Your task to perform on an android device: turn on sleep mode Image 0: 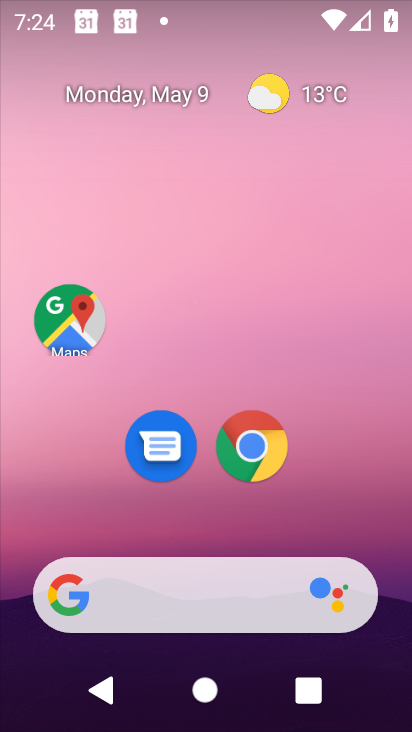
Step 0: drag from (301, 480) to (322, 82)
Your task to perform on an android device: turn on sleep mode Image 1: 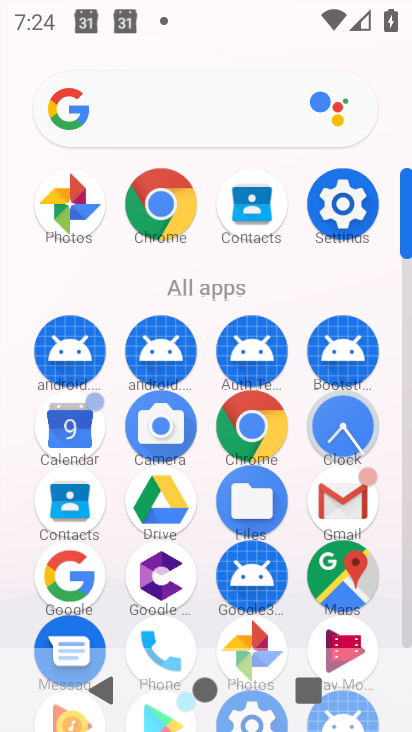
Step 1: click (341, 199)
Your task to perform on an android device: turn on sleep mode Image 2: 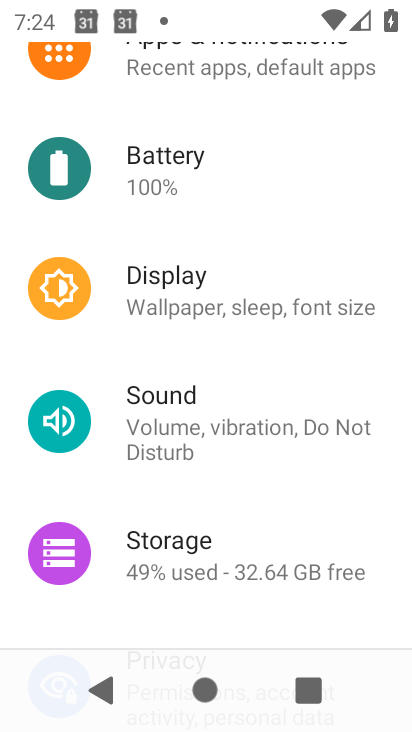
Step 2: click (271, 318)
Your task to perform on an android device: turn on sleep mode Image 3: 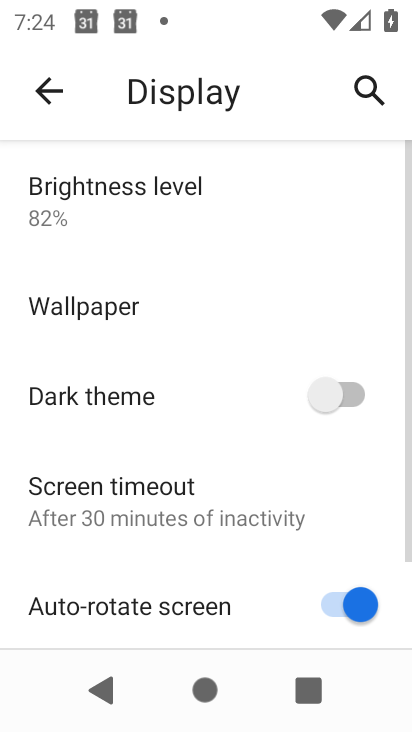
Step 3: drag from (235, 531) to (247, 162)
Your task to perform on an android device: turn on sleep mode Image 4: 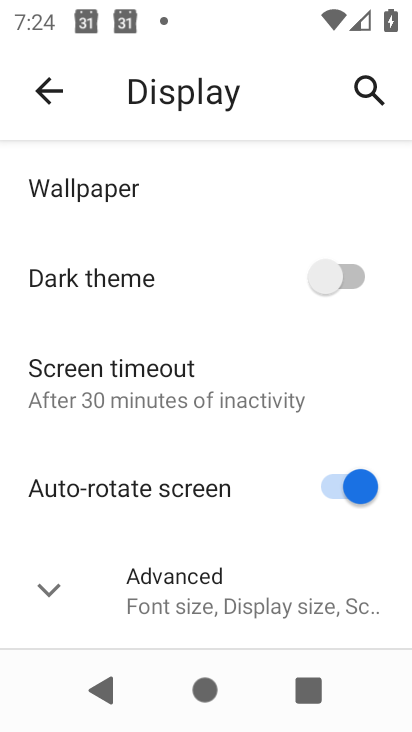
Step 4: click (43, 588)
Your task to perform on an android device: turn on sleep mode Image 5: 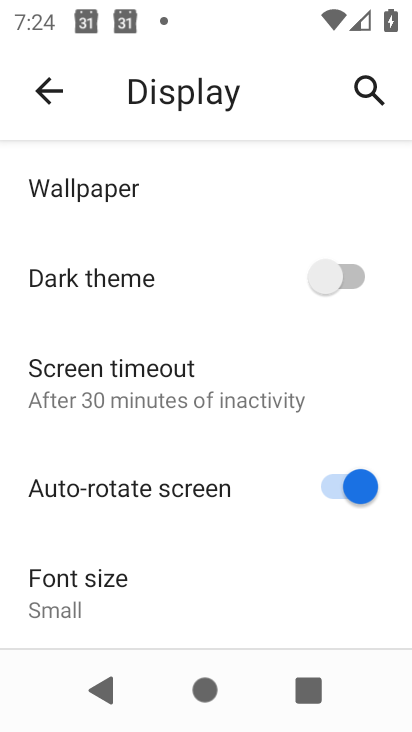
Step 5: task complete